Your task to perform on an android device: turn off location Image 0: 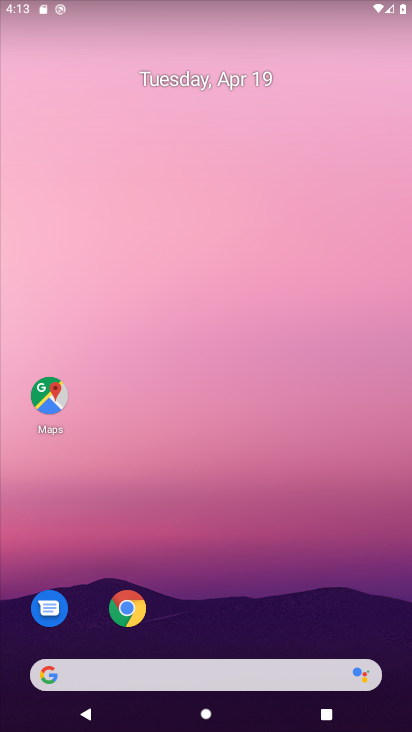
Step 0: drag from (230, 371) to (248, 52)
Your task to perform on an android device: turn off location Image 1: 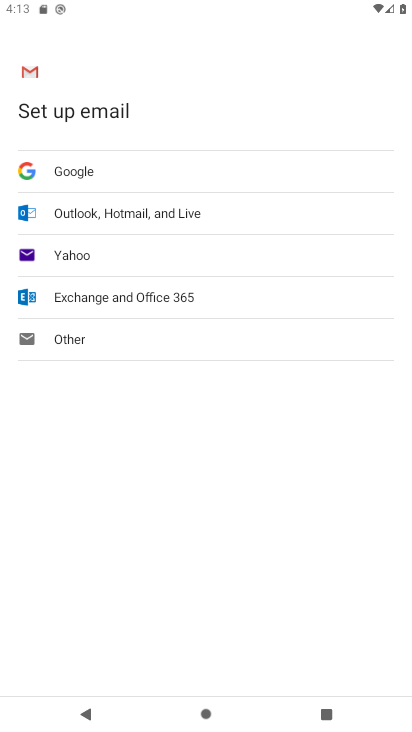
Step 1: press home button
Your task to perform on an android device: turn off location Image 2: 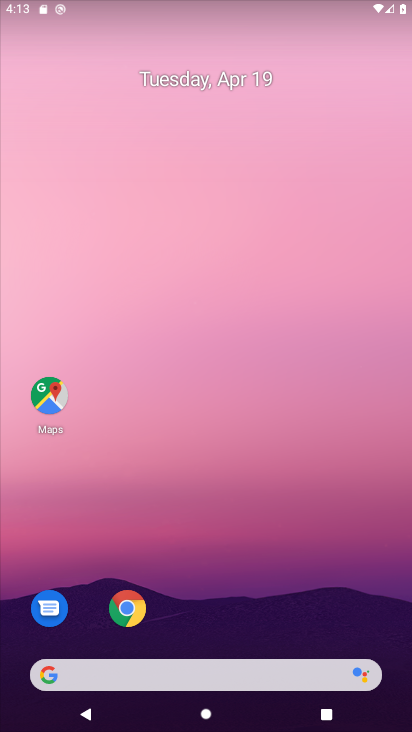
Step 2: drag from (253, 568) to (285, 107)
Your task to perform on an android device: turn off location Image 3: 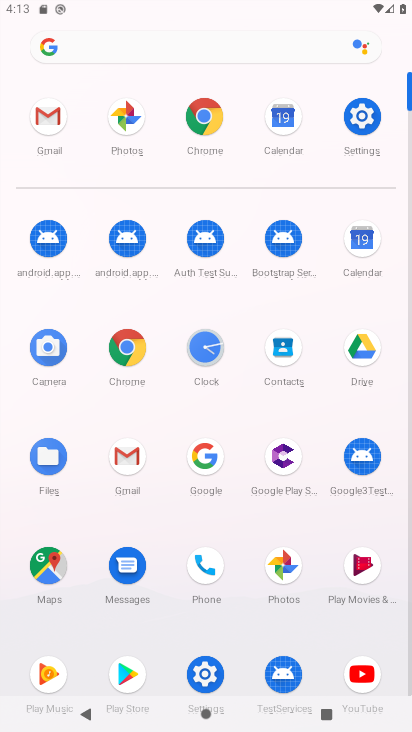
Step 3: click (211, 671)
Your task to perform on an android device: turn off location Image 4: 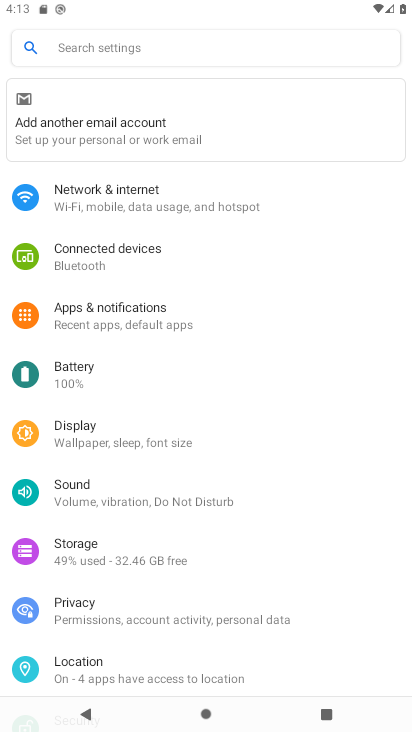
Step 4: drag from (209, 614) to (250, 141)
Your task to perform on an android device: turn off location Image 5: 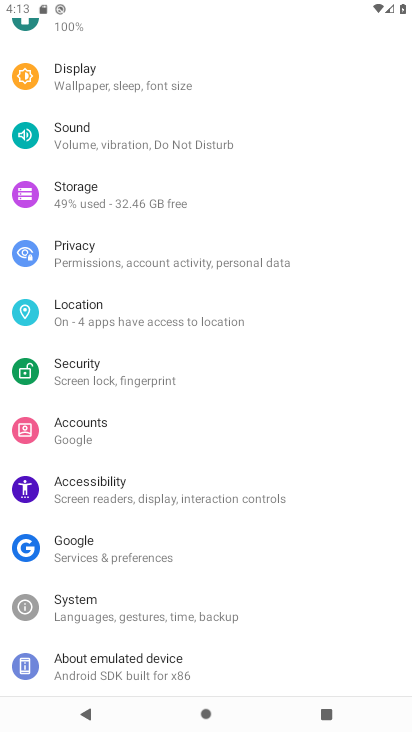
Step 5: drag from (196, 599) to (224, 263)
Your task to perform on an android device: turn off location Image 6: 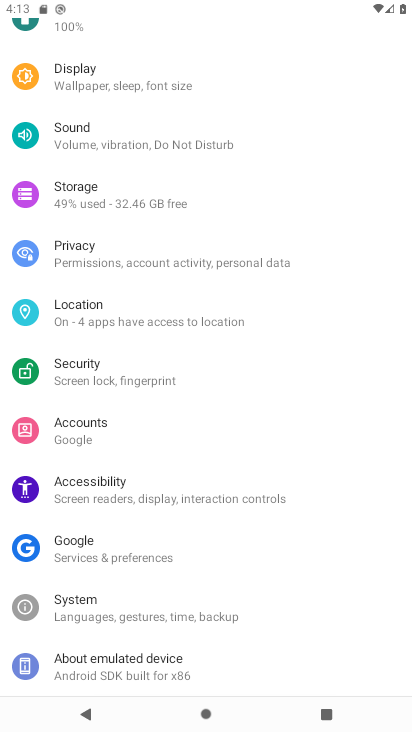
Step 6: click (80, 305)
Your task to perform on an android device: turn off location Image 7: 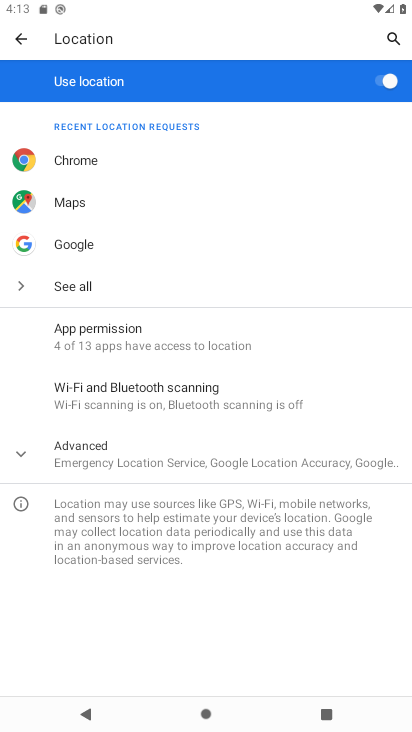
Step 7: click (379, 80)
Your task to perform on an android device: turn off location Image 8: 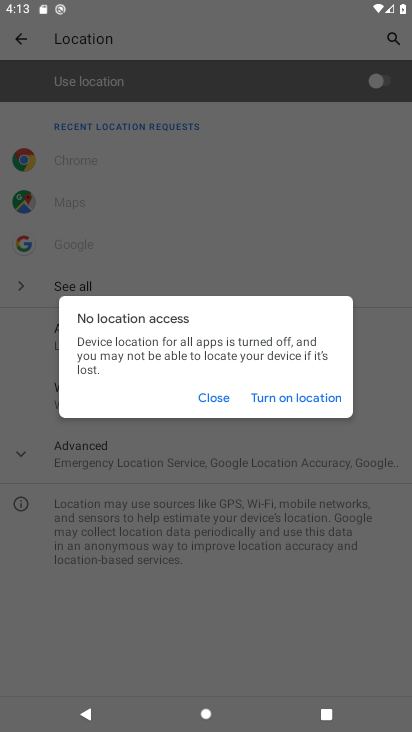
Step 8: task complete